Your task to perform on an android device: turn off location Image 0: 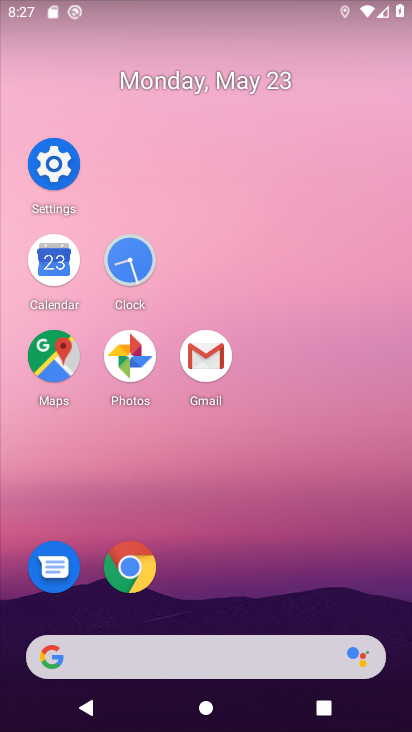
Step 0: click (57, 181)
Your task to perform on an android device: turn off location Image 1: 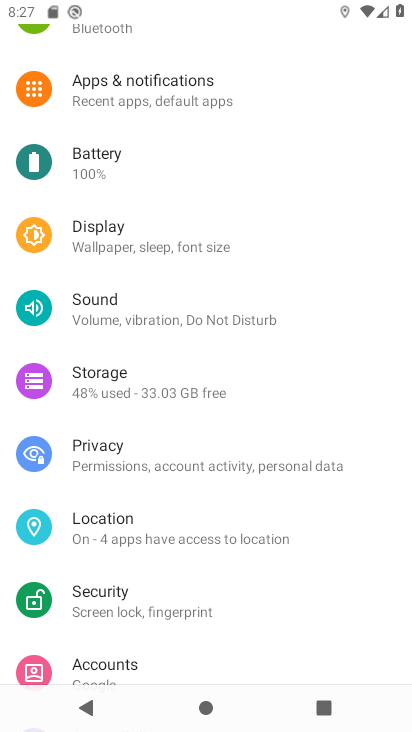
Step 1: click (168, 525)
Your task to perform on an android device: turn off location Image 2: 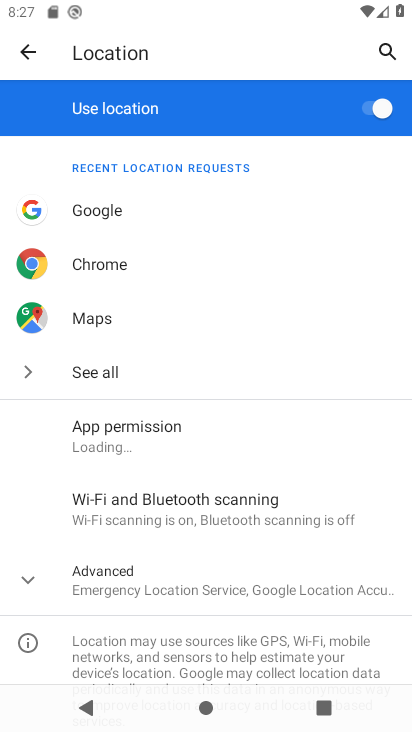
Step 2: click (373, 116)
Your task to perform on an android device: turn off location Image 3: 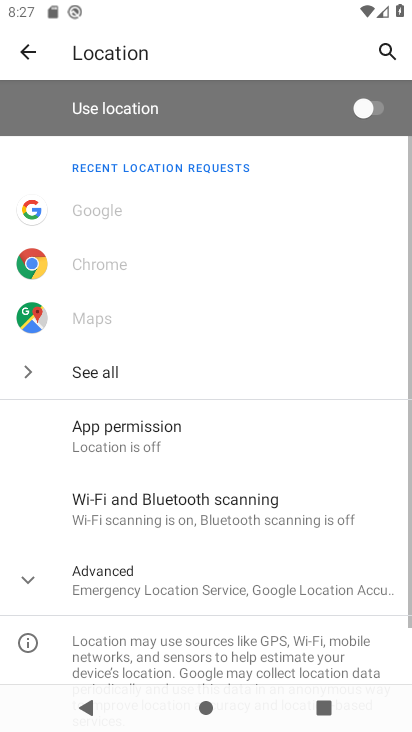
Step 3: task complete